Your task to perform on an android device: open chrome and create a bookmark for the current page Image 0: 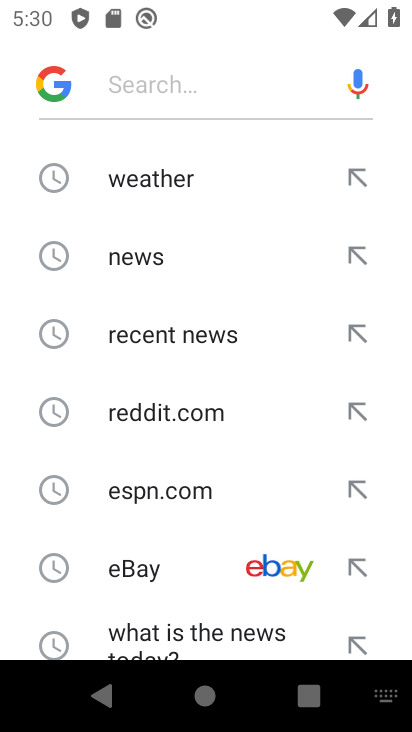
Step 0: press home button
Your task to perform on an android device: open chrome and create a bookmark for the current page Image 1: 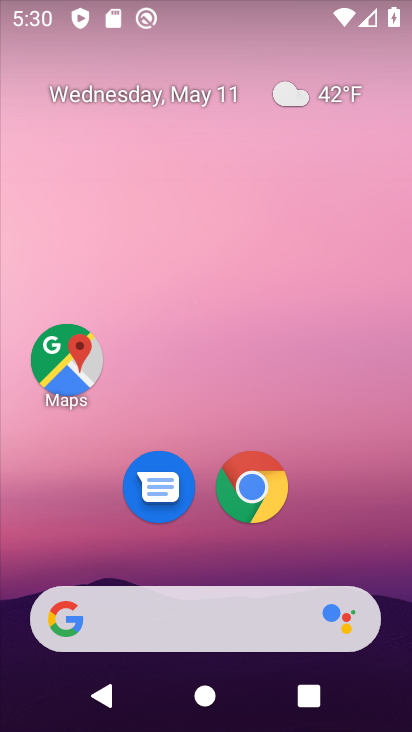
Step 1: drag from (228, 553) to (267, 142)
Your task to perform on an android device: open chrome and create a bookmark for the current page Image 2: 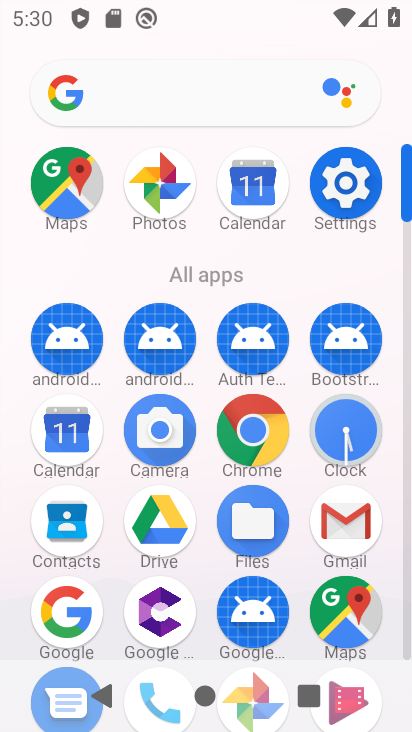
Step 2: click (261, 417)
Your task to perform on an android device: open chrome and create a bookmark for the current page Image 3: 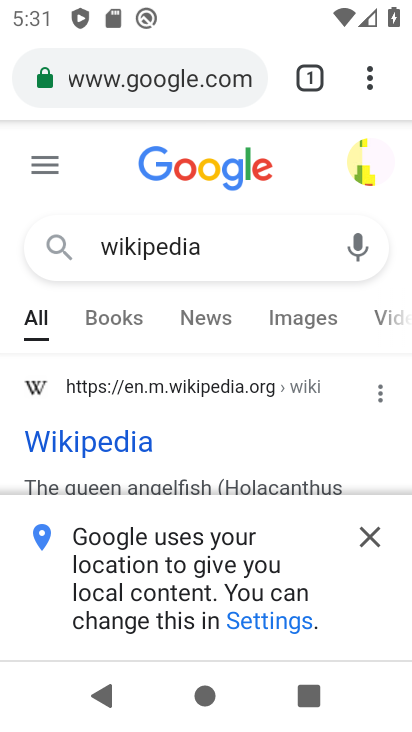
Step 3: click (367, 537)
Your task to perform on an android device: open chrome and create a bookmark for the current page Image 4: 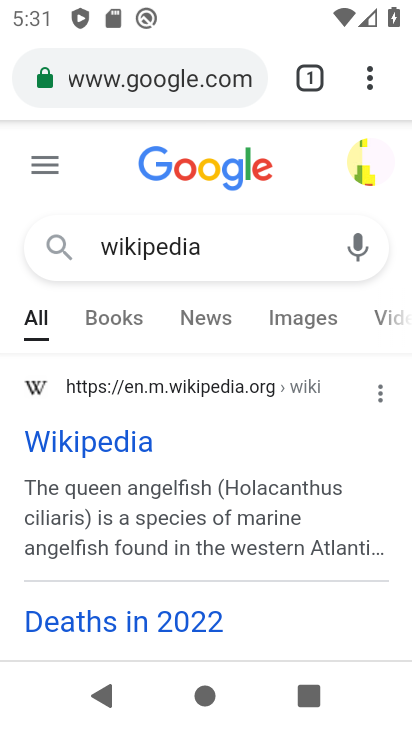
Step 4: click (367, 79)
Your task to perform on an android device: open chrome and create a bookmark for the current page Image 5: 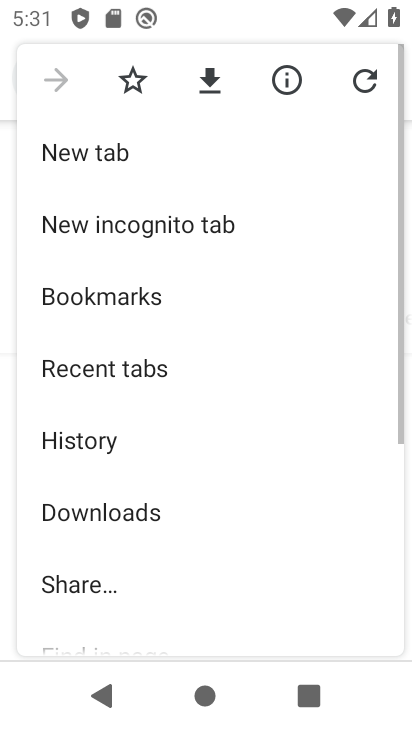
Step 5: click (138, 87)
Your task to perform on an android device: open chrome and create a bookmark for the current page Image 6: 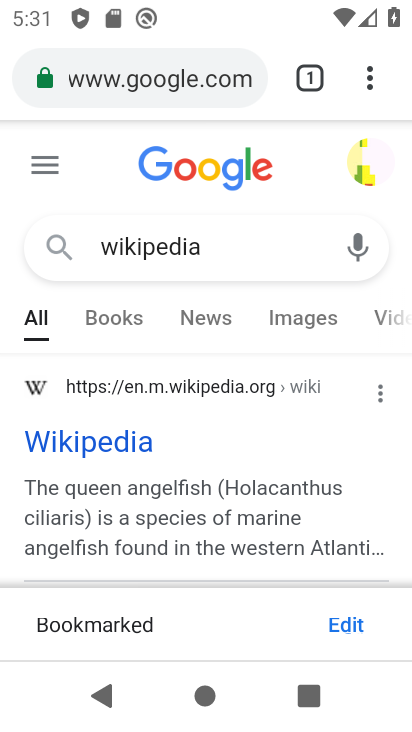
Step 6: task complete